Your task to perform on an android device: Open Maps and search for coffee Image 0: 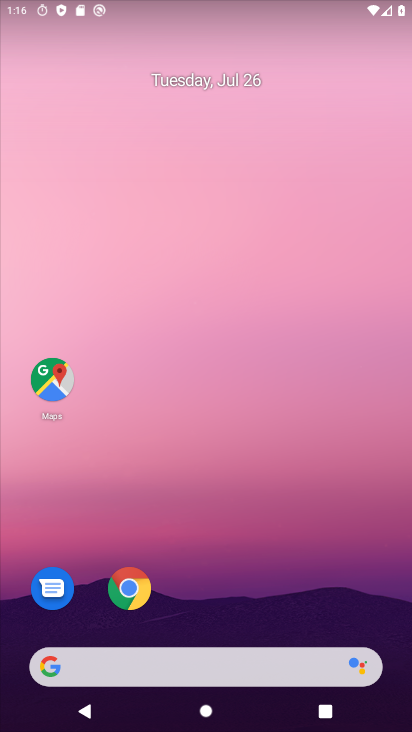
Step 0: click (53, 388)
Your task to perform on an android device: Open Maps and search for coffee Image 1: 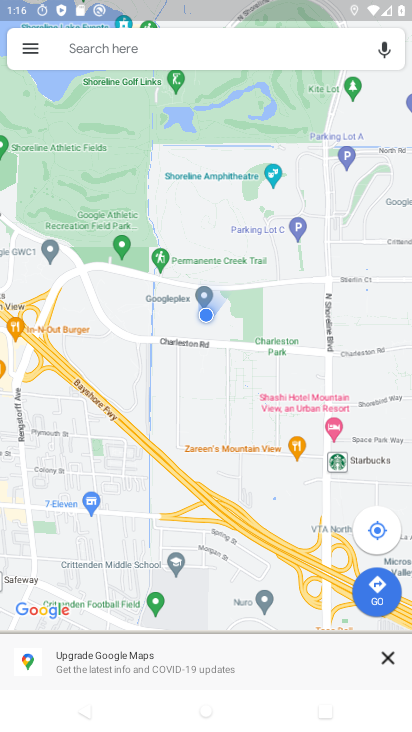
Step 1: click (138, 56)
Your task to perform on an android device: Open Maps and search for coffee Image 2: 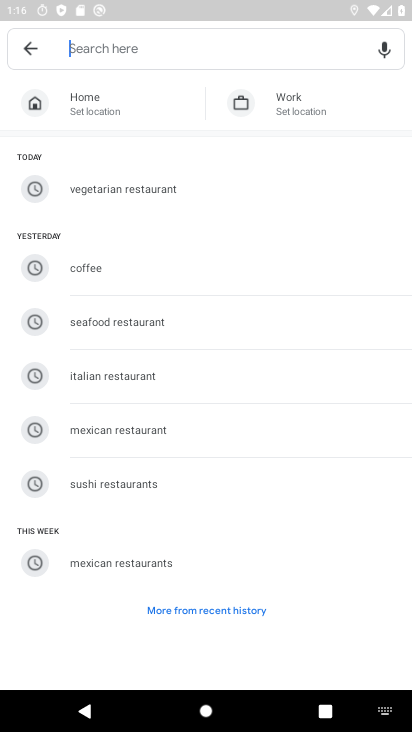
Step 2: click (182, 276)
Your task to perform on an android device: Open Maps and search for coffee Image 3: 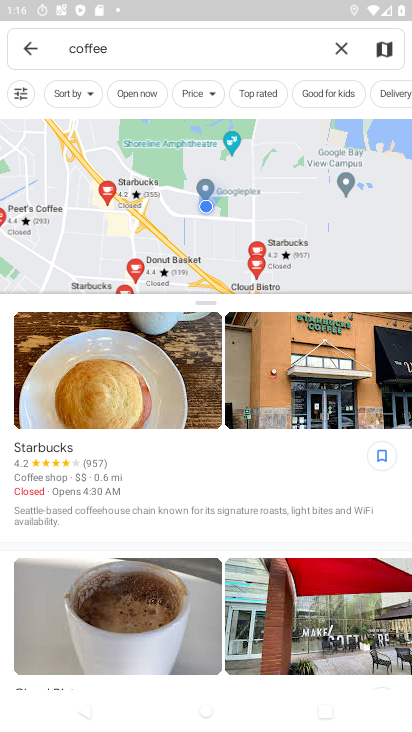
Step 3: task complete